Your task to perform on an android device: Go to ESPN.com Image 0: 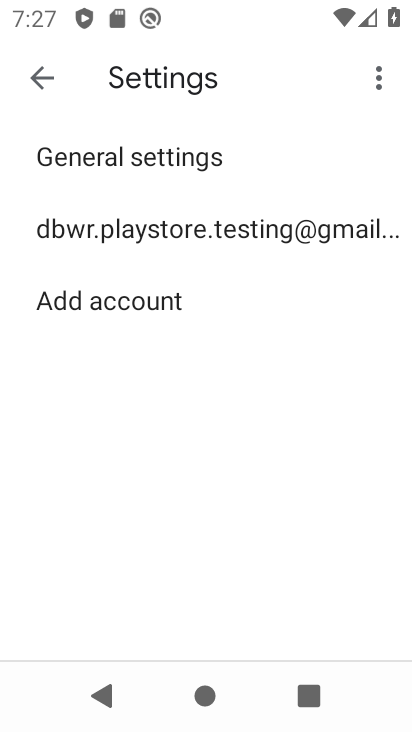
Step 0: press home button
Your task to perform on an android device: Go to ESPN.com Image 1: 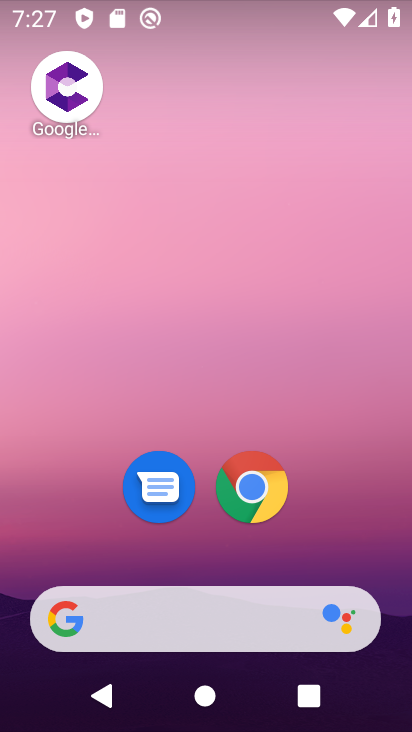
Step 1: drag from (370, 540) to (382, 174)
Your task to perform on an android device: Go to ESPN.com Image 2: 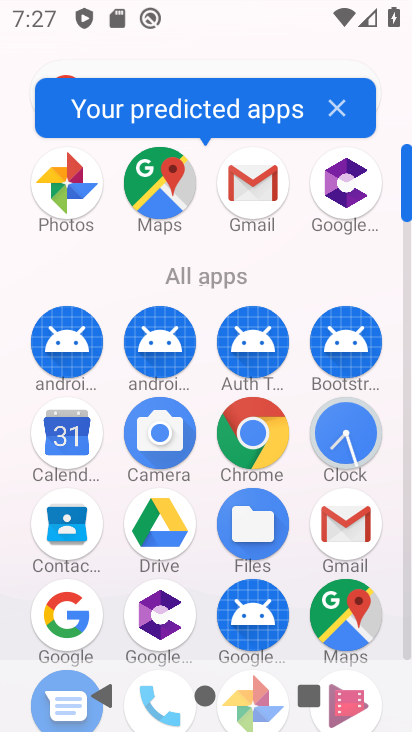
Step 2: click (270, 453)
Your task to perform on an android device: Go to ESPN.com Image 3: 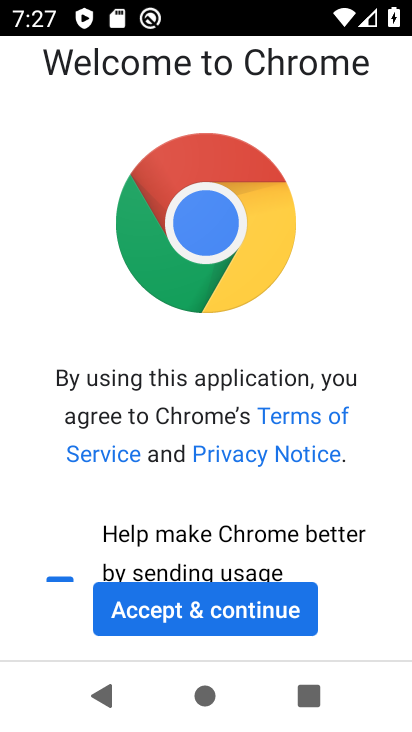
Step 3: click (279, 593)
Your task to perform on an android device: Go to ESPN.com Image 4: 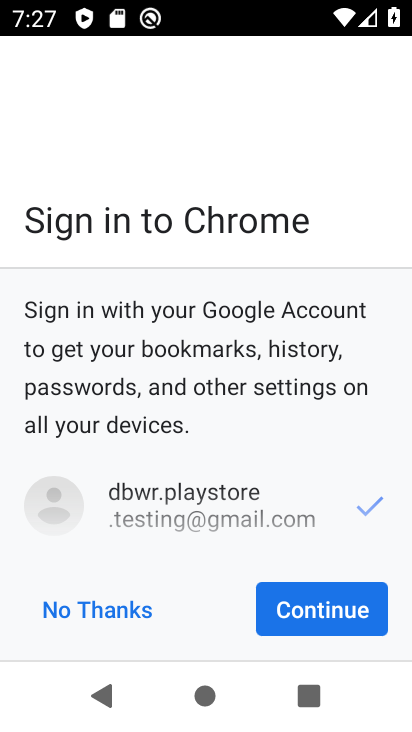
Step 4: click (294, 612)
Your task to perform on an android device: Go to ESPN.com Image 5: 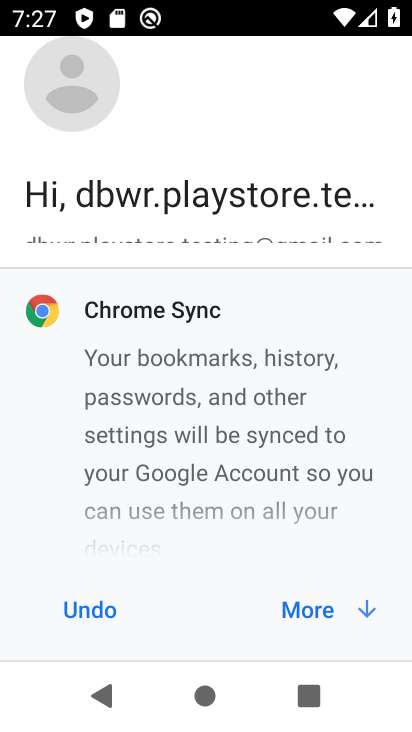
Step 5: click (294, 612)
Your task to perform on an android device: Go to ESPN.com Image 6: 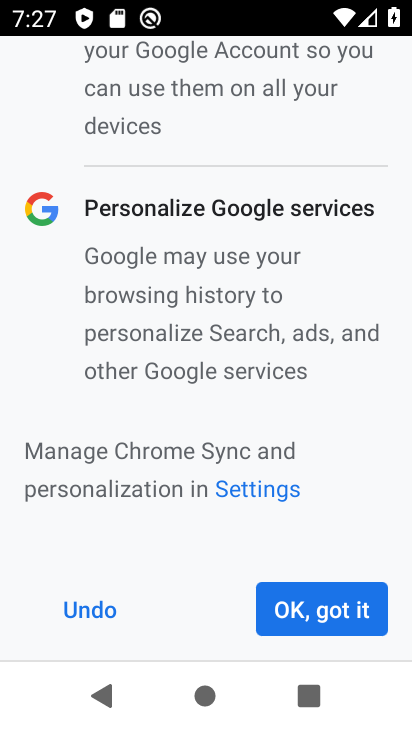
Step 6: click (294, 612)
Your task to perform on an android device: Go to ESPN.com Image 7: 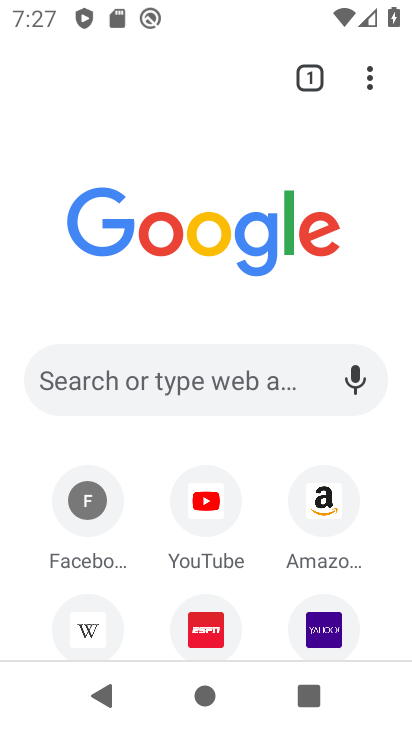
Step 7: click (271, 386)
Your task to perform on an android device: Go to ESPN.com Image 8: 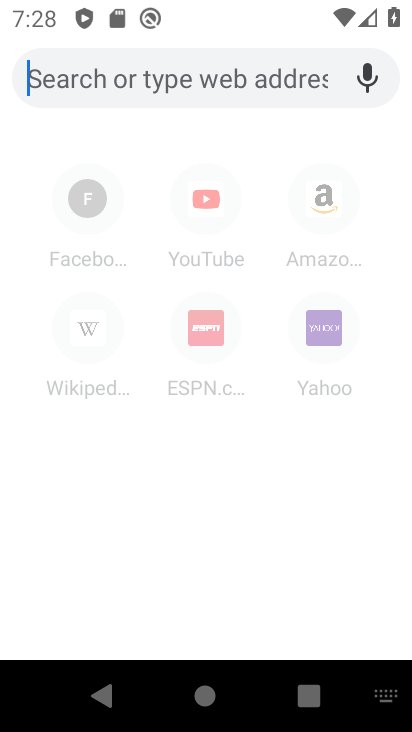
Step 8: type "espn.com"
Your task to perform on an android device: Go to ESPN.com Image 9: 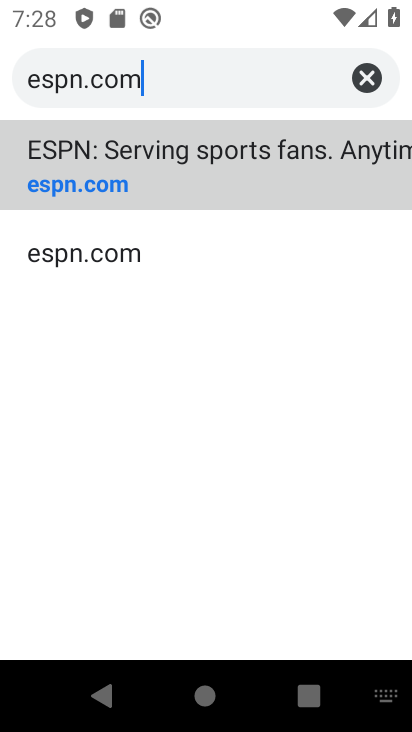
Step 9: click (191, 191)
Your task to perform on an android device: Go to ESPN.com Image 10: 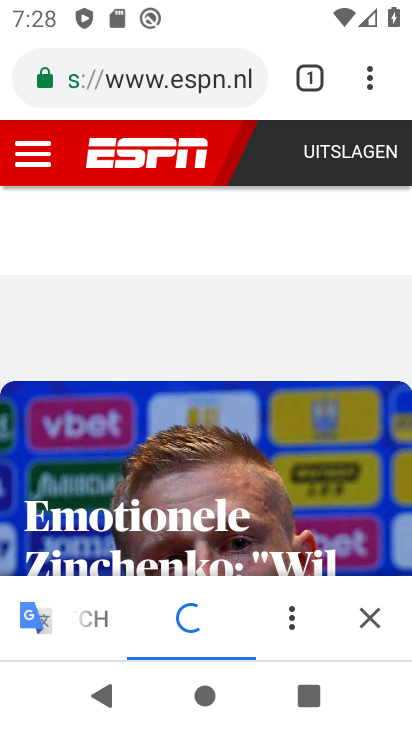
Step 10: task complete